Your task to perform on an android device: turn vacation reply on in the gmail app Image 0: 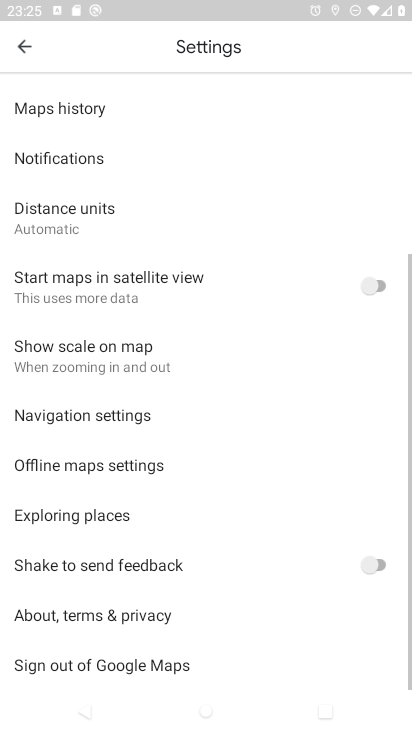
Step 0: press home button
Your task to perform on an android device: turn vacation reply on in the gmail app Image 1: 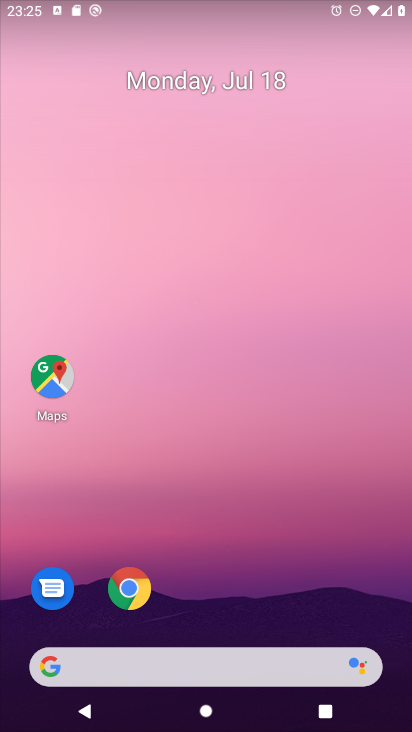
Step 1: drag from (388, 626) to (336, 191)
Your task to perform on an android device: turn vacation reply on in the gmail app Image 2: 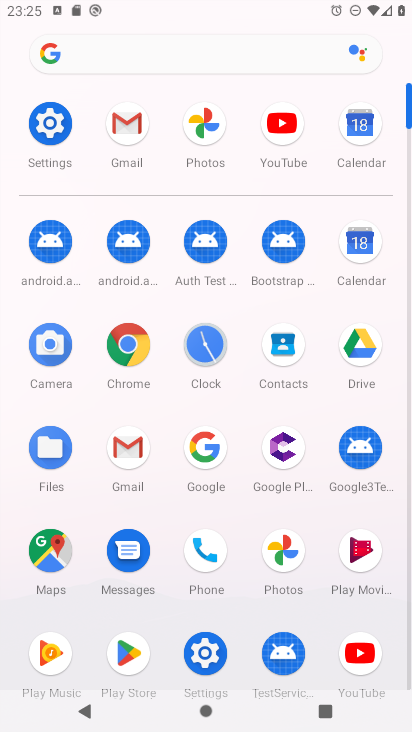
Step 2: click (119, 447)
Your task to perform on an android device: turn vacation reply on in the gmail app Image 3: 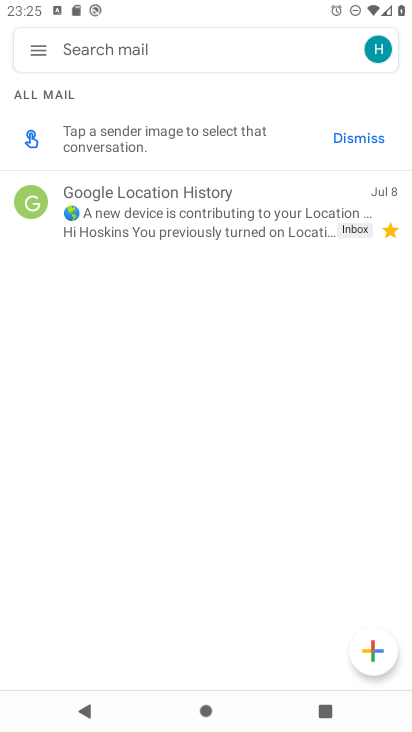
Step 3: click (38, 48)
Your task to perform on an android device: turn vacation reply on in the gmail app Image 4: 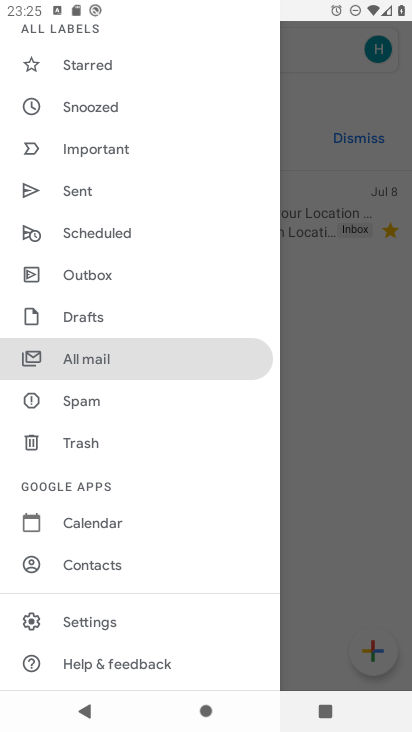
Step 4: click (96, 620)
Your task to perform on an android device: turn vacation reply on in the gmail app Image 5: 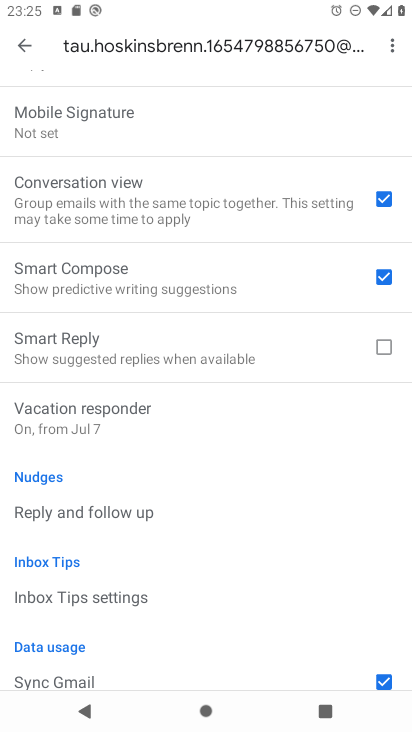
Step 5: drag from (214, 622) to (224, 365)
Your task to perform on an android device: turn vacation reply on in the gmail app Image 6: 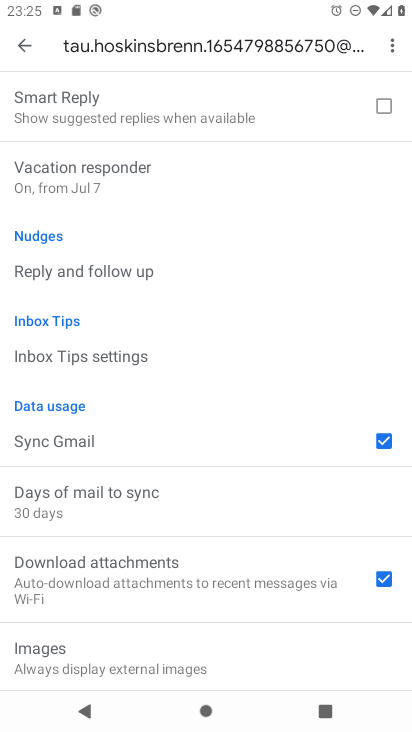
Step 6: click (67, 164)
Your task to perform on an android device: turn vacation reply on in the gmail app Image 7: 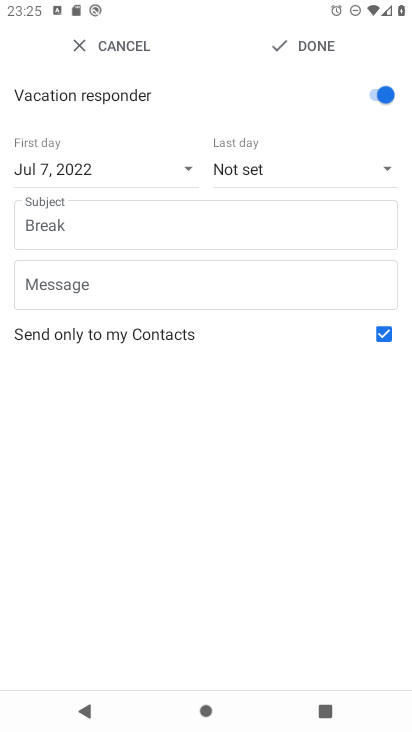
Step 7: click (321, 47)
Your task to perform on an android device: turn vacation reply on in the gmail app Image 8: 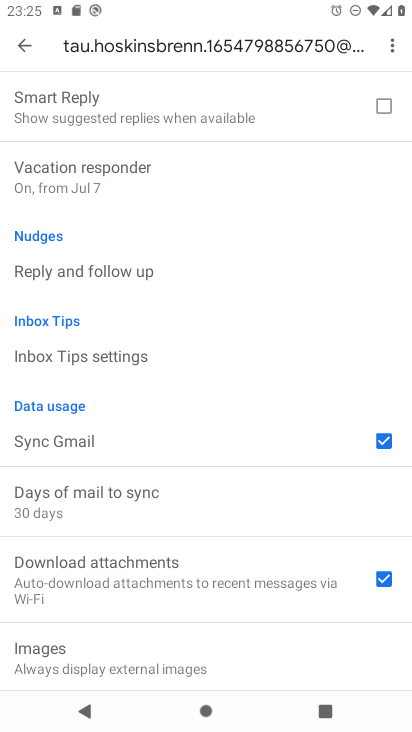
Step 8: task complete